Your task to perform on an android device: Show me productivity apps on the Play Store Image 0: 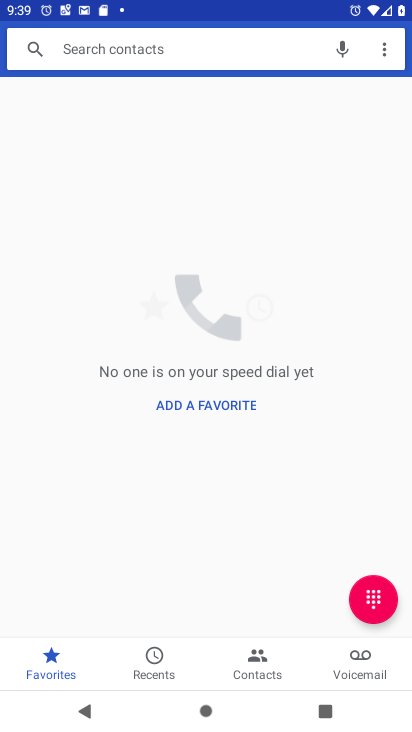
Step 0: press home button
Your task to perform on an android device: Show me productivity apps on the Play Store Image 1: 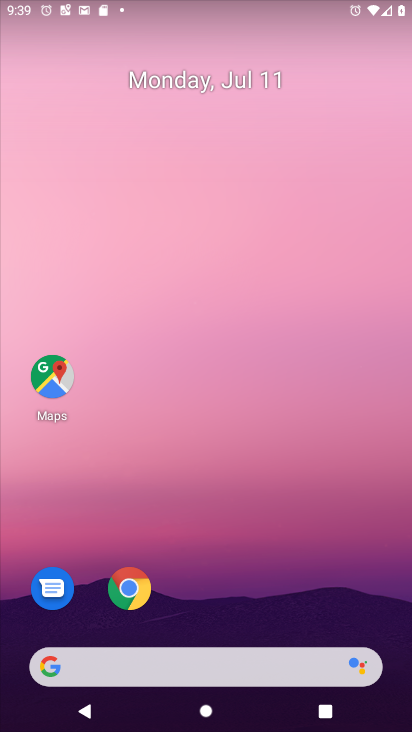
Step 1: drag from (228, 668) to (255, 87)
Your task to perform on an android device: Show me productivity apps on the Play Store Image 2: 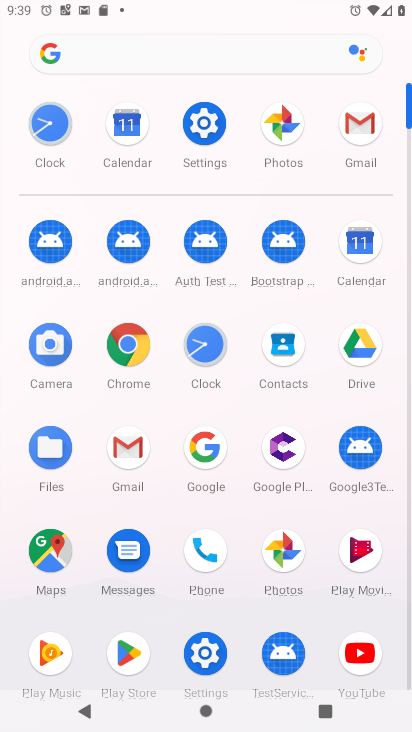
Step 2: click (119, 650)
Your task to perform on an android device: Show me productivity apps on the Play Store Image 3: 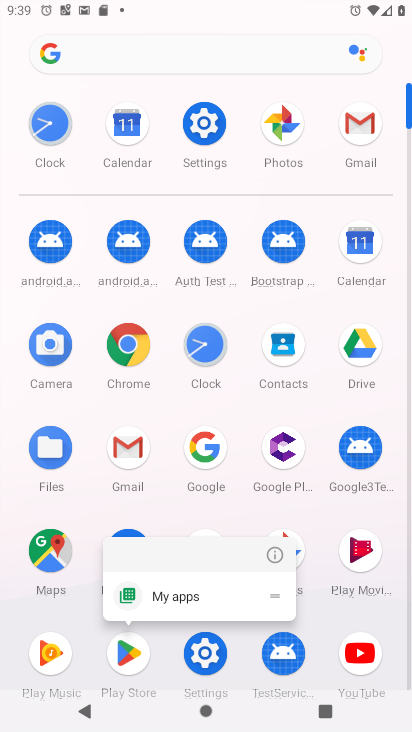
Step 3: click (128, 653)
Your task to perform on an android device: Show me productivity apps on the Play Store Image 4: 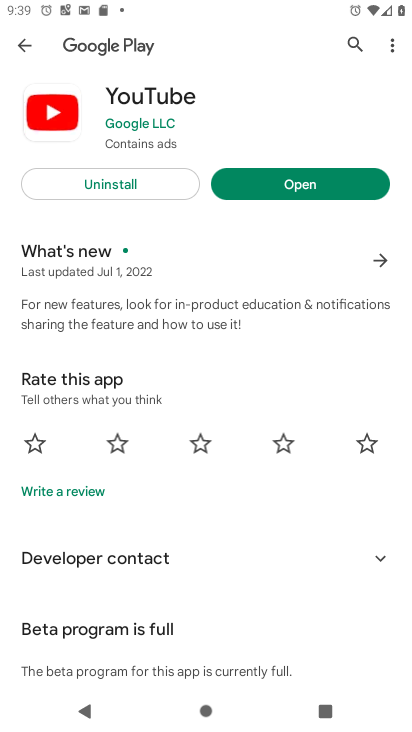
Step 4: click (25, 40)
Your task to perform on an android device: Show me productivity apps on the Play Store Image 5: 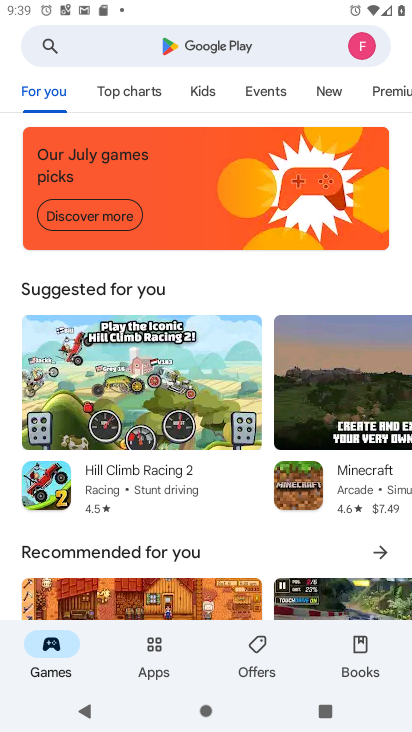
Step 5: click (153, 663)
Your task to perform on an android device: Show me productivity apps on the Play Store Image 6: 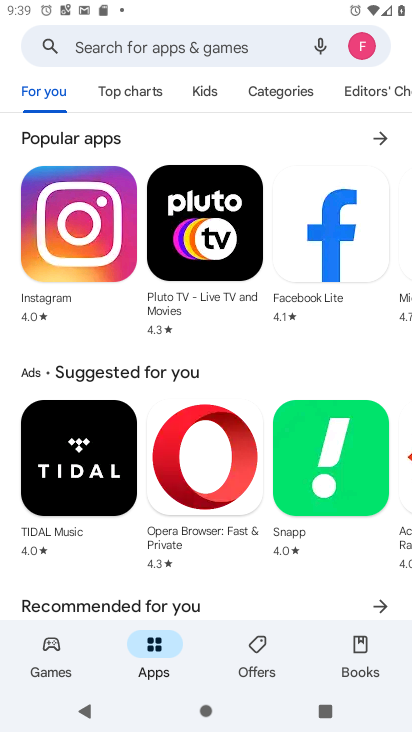
Step 6: click (267, 89)
Your task to perform on an android device: Show me productivity apps on the Play Store Image 7: 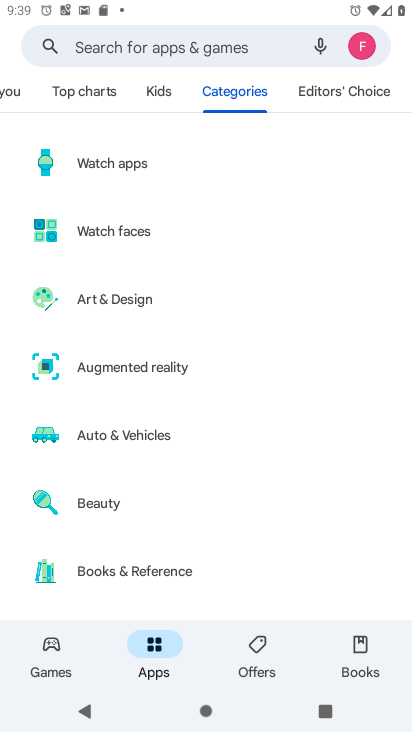
Step 7: drag from (244, 532) to (301, 87)
Your task to perform on an android device: Show me productivity apps on the Play Store Image 8: 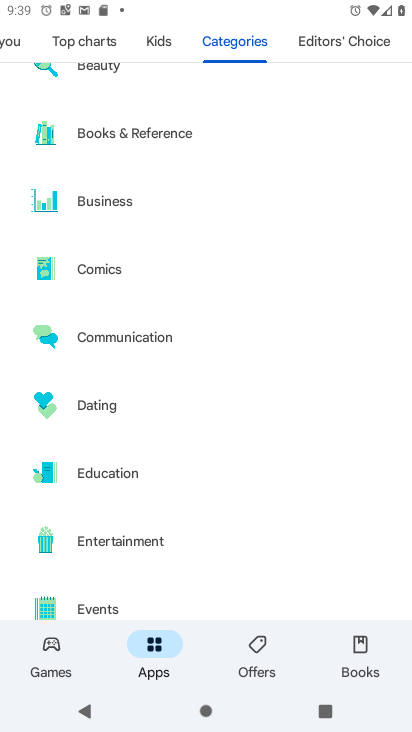
Step 8: drag from (227, 561) to (264, 4)
Your task to perform on an android device: Show me productivity apps on the Play Store Image 9: 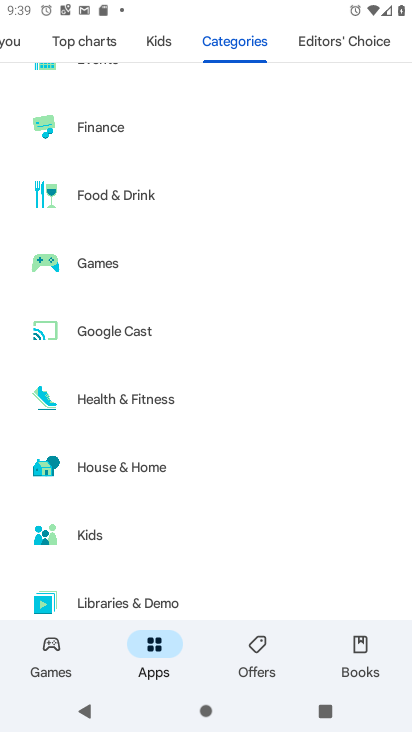
Step 9: drag from (197, 514) to (241, 0)
Your task to perform on an android device: Show me productivity apps on the Play Store Image 10: 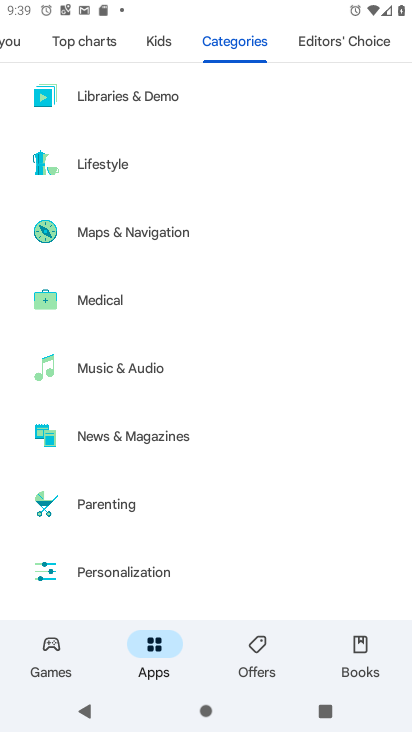
Step 10: drag from (229, 463) to (249, 166)
Your task to perform on an android device: Show me productivity apps on the Play Store Image 11: 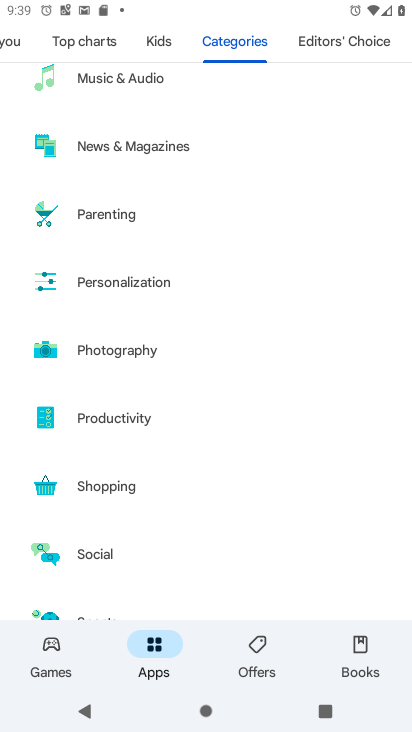
Step 11: click (144, 416)
Your task to perform on an android device: Show me productivity apps on the Play Store Image 12: 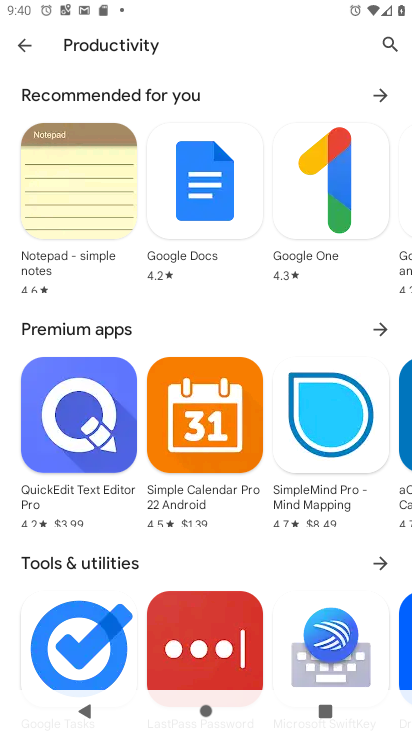
Step 12: task complete